Your task to perform on an android device: Search for seafood restaurants on Google Maps Image 0: 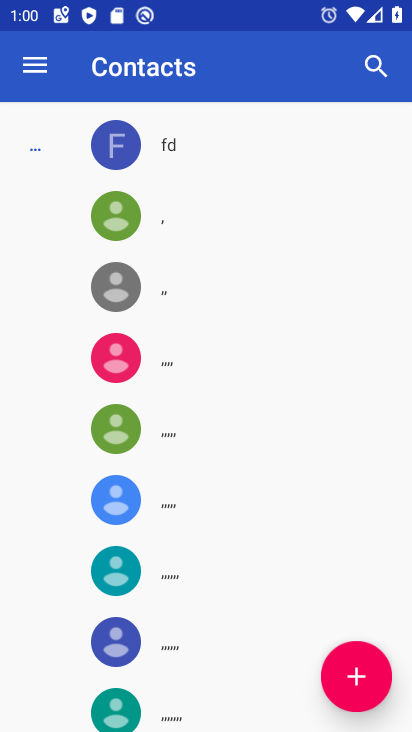
Step 0: press home button
Your task to perform on an android device: Search for seafood restaurants on Google Maps Image 1: 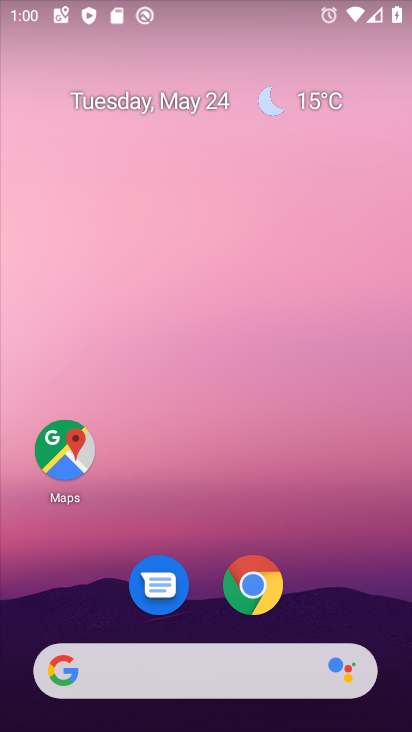
Step 1: click (69, 442)
Your task to perform on an android device: Search for seafood restaurants on Google Maps Image 2: 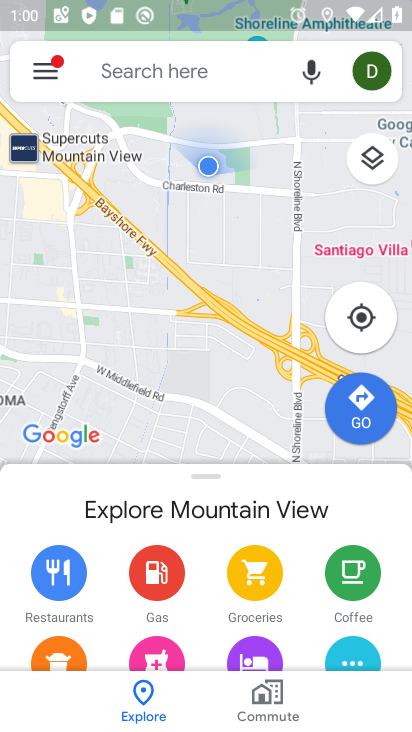
Step 2: click (144, 66)
Your task to perform on an android device: Search for seafood restaurants on Google Maps Image 3: 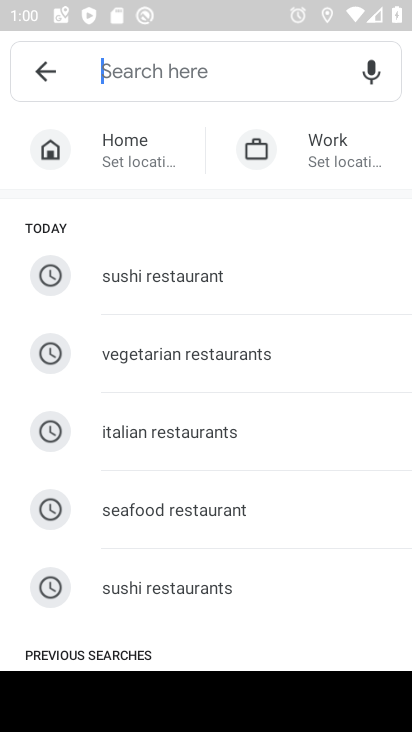
Step 3: click (188, 509)
Your task to perform on an android device: Search for seafood restaurants on Google Maps Image 4: 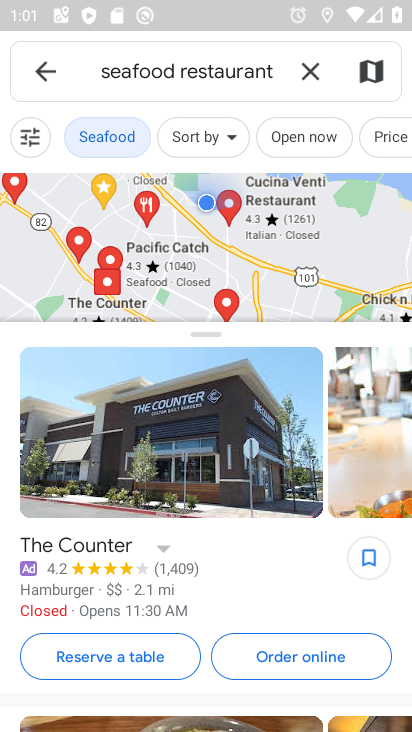
Step 4: task complete